Your task to perform on an android device: toggle data saver in the chrome app Image 0: 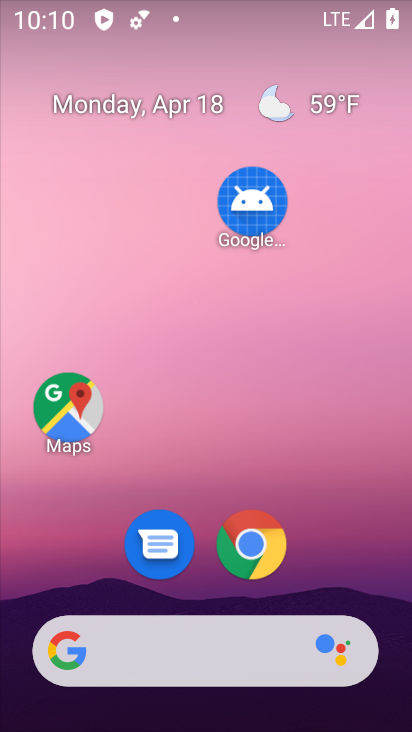
Step 0: drag from (297, 390) to (310, 246)
Your task to perform on an android device: toggle data saver in the chrome app Image 1: 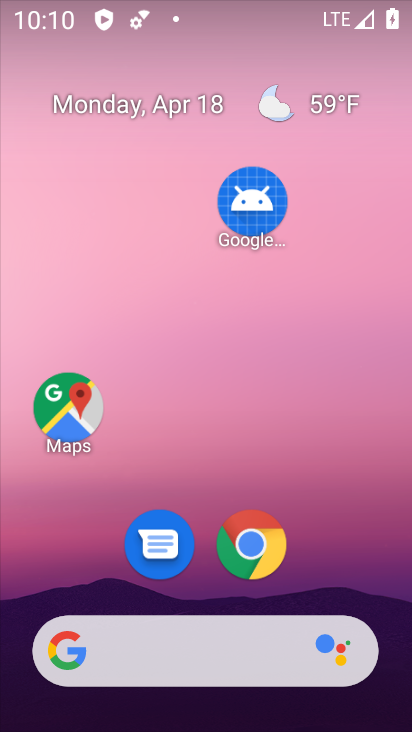
Step 1: drag from (336, 402) to (372, 161)
Your task to perform on an android device: toggle data saver in the chrome app Image 2: 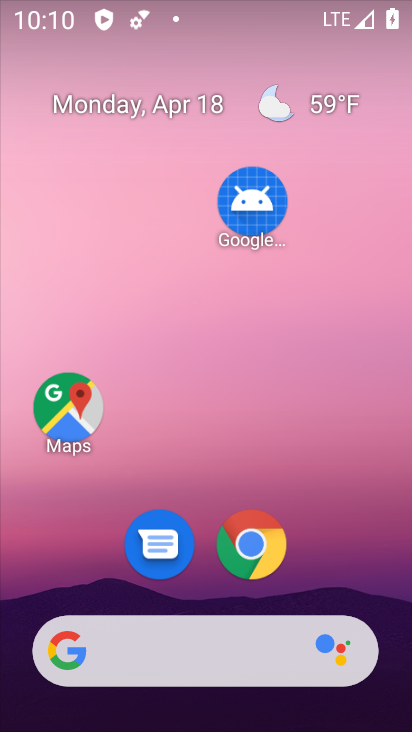
Step 2: drag from (269, 455) to (375, 280)
Your task to perform on an android device: toggle data saver in the chrome app Image 3: 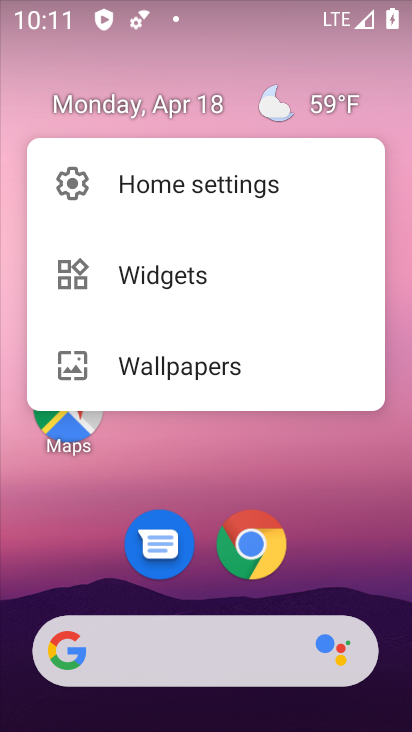
Step 3: click (313, 476)
Your task to perform on an android device: toggle data saver in the chrome app Image 4: 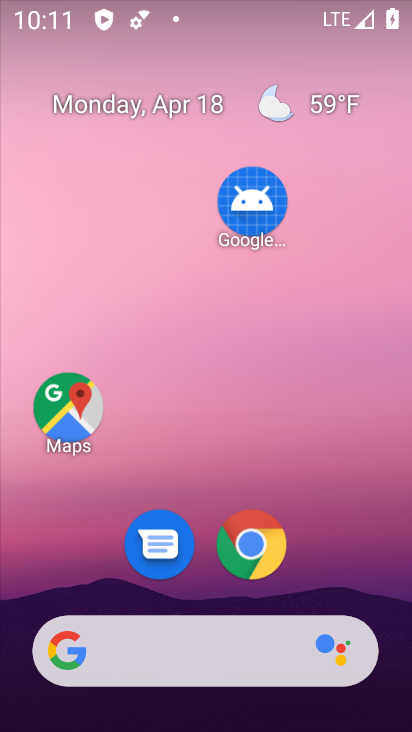
Step 4: drag from (329, 580) to (333, 73)
Your task to perform on an android device: toggle data saver in the chrome app Image 5: 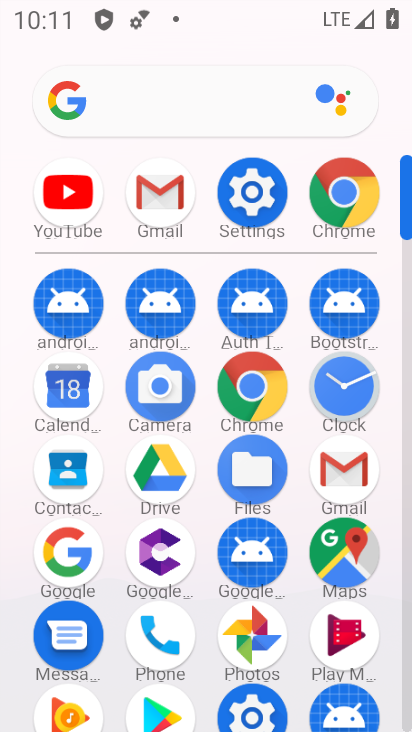
Step 5: click (331, 192)
Your task to perform on an android device: toggle data saver in the chrome app Image 6: 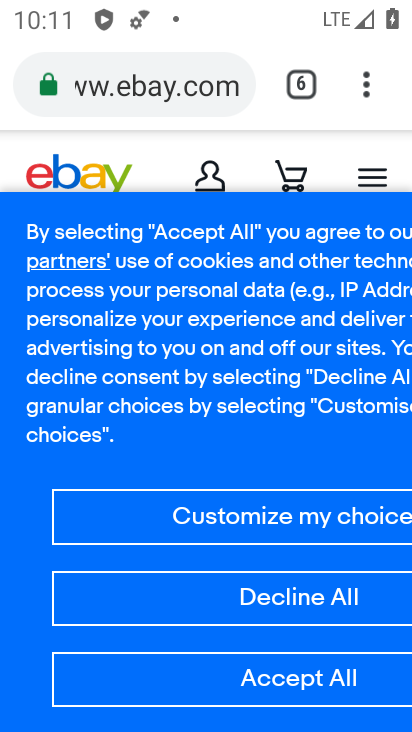
Step 6: click (374, 78)
Your task to perform on an android device: toggle data saver in the chrome app Image 7: 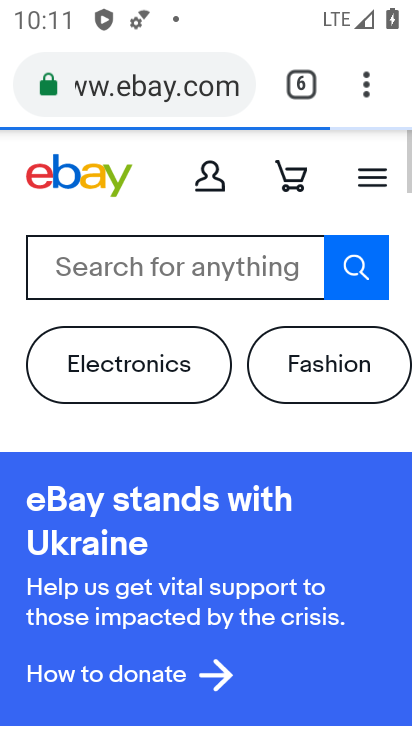
Step 7: click (374, 78)
Your task to perform on an android device: toggle data saver in the chrome app Image 8: 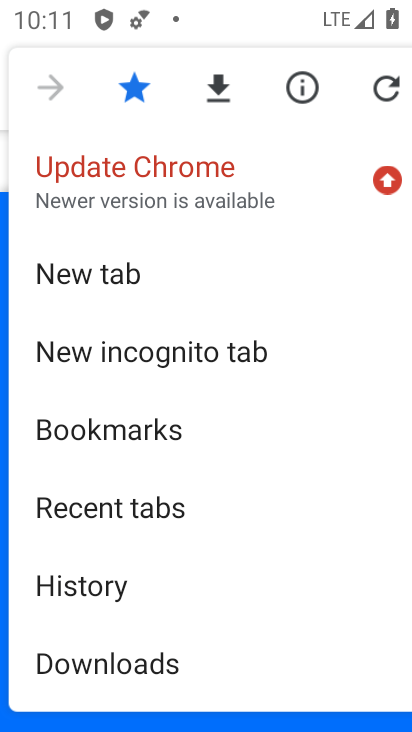
Step 8: drag from (221, 639) to (288, 226)
Your task to perform on an android device: toggle data saver in the chrome app Image 9: 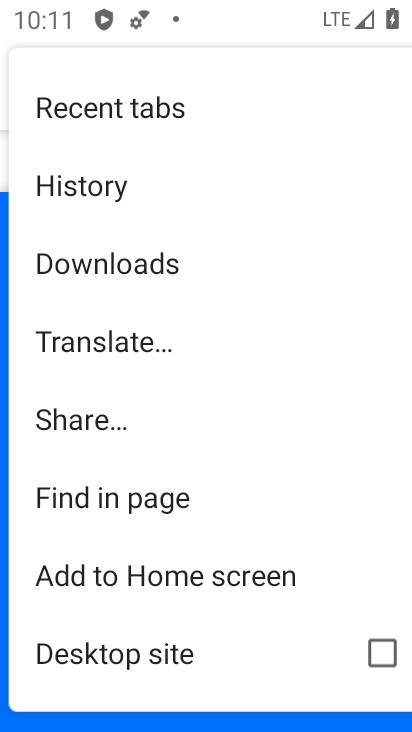
Step 9: drag from (130, 532) to (279, 159)
Your task to perform on an android device: toggle data saver in the chrome app Image 10: 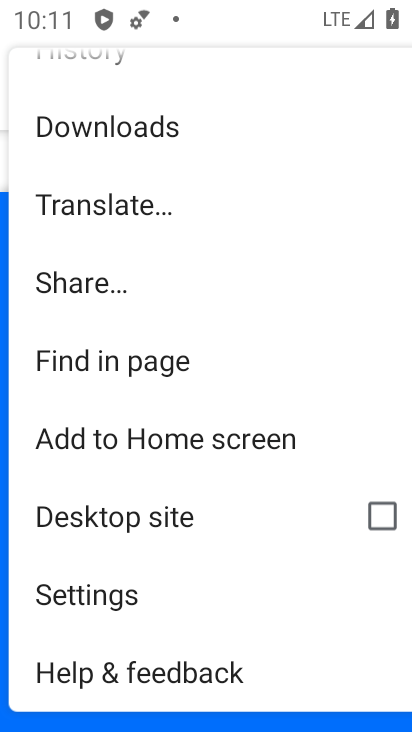
Step 10: click (106, 593)
Your task to perform on an android device: toggle data saver in the chrome app Image 11: 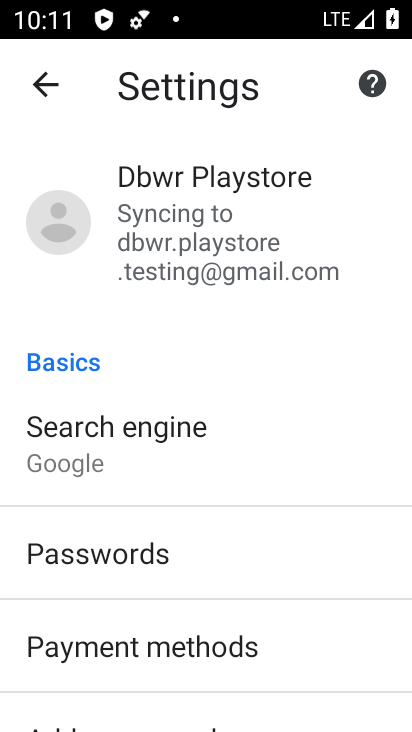
Step 11: drag from (328, 652) to (398, 211)
Your task to perform on an android device: toggle data saver in the chrome app Image 12: 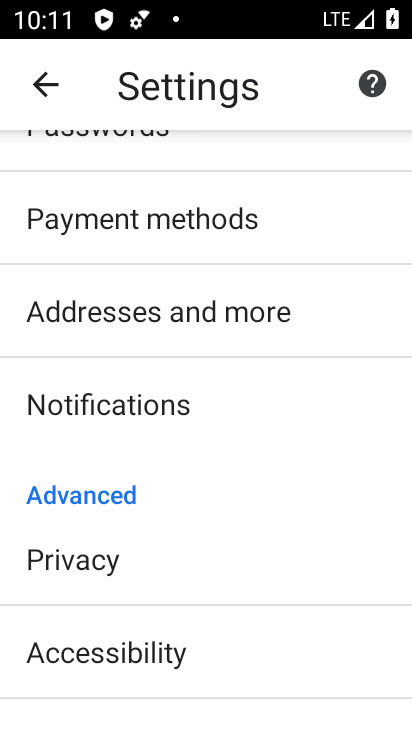
Step 12: drag from (231, 582) to (278, 230)
Your task to perform on an android device: toggle data saver in the chrome app Image 13: 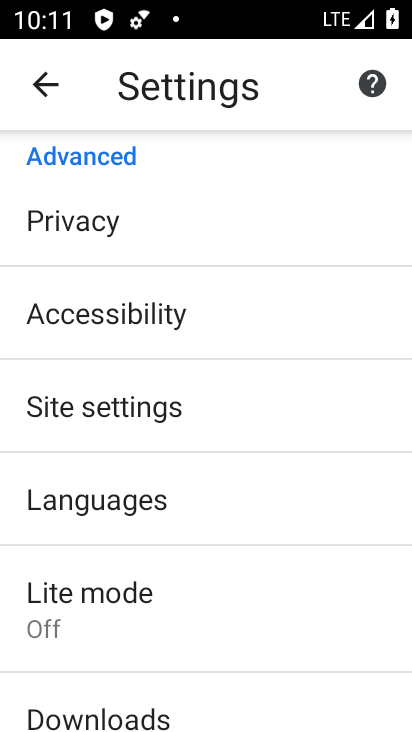
Step 13: click (152, 612)
Your task to perform on an android device: toggle data saver in the chrome app Image 14: 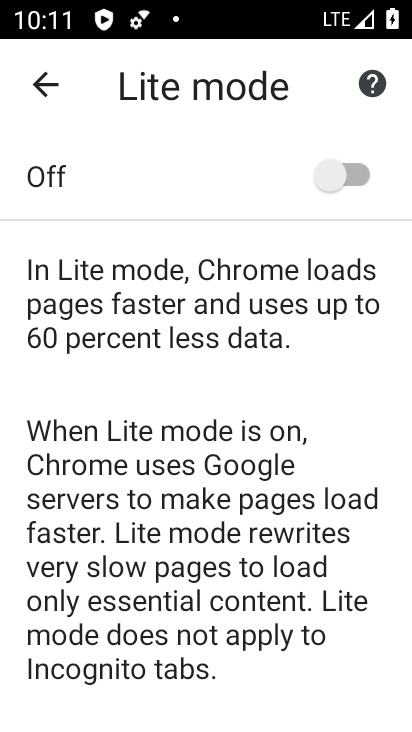
Step 14: click (337, 169)
Your task to perform on an android device: toggle data saver in the chrome app Image 15: 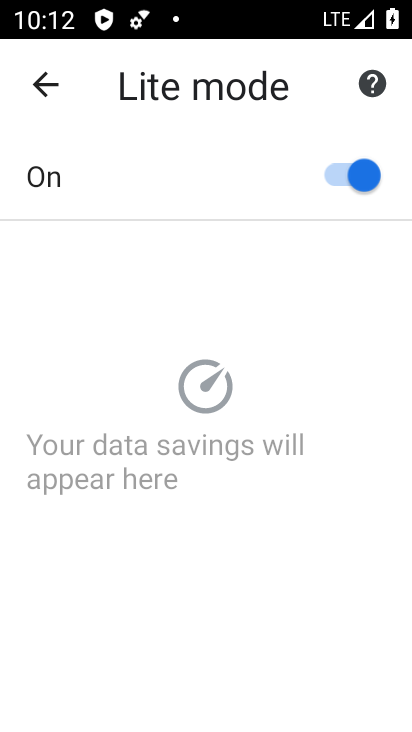
Step 15: task complete